Your task to perform on an android device: Open display settings Image 0: 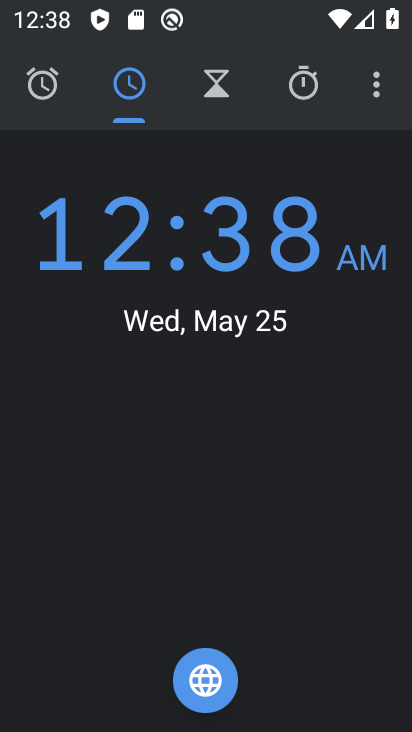
Step 0: press home button
Your task to perform on an android device: Open display settings Image 1: 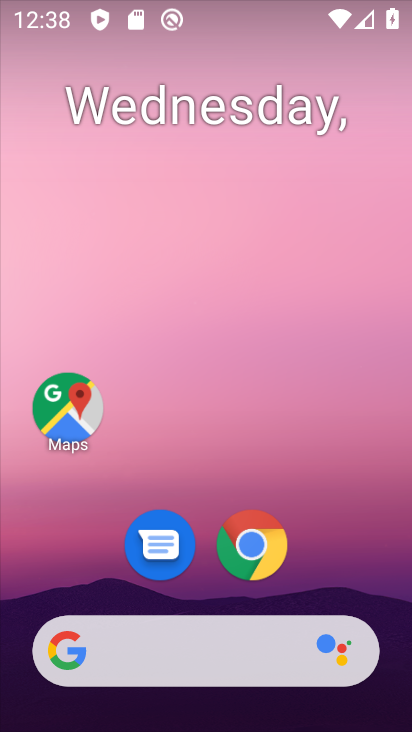
Step 1: drag from (250, 463) to (223, 144)
Your task to perform on an android device: Open display settings Image 2: 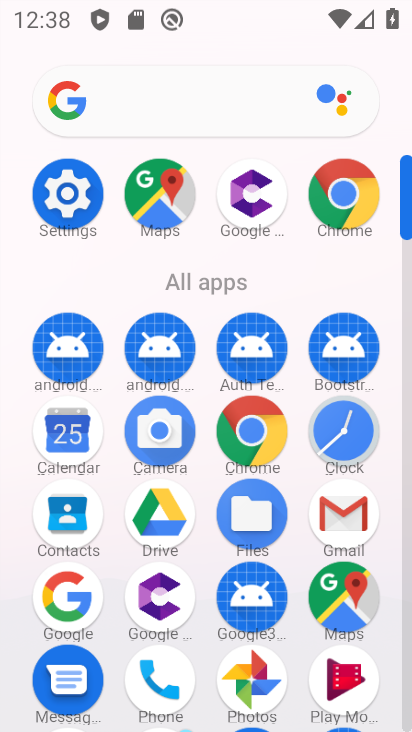
Step 2: click (77, 212)
Your task to perform on an android device: Open display settings Image 3: 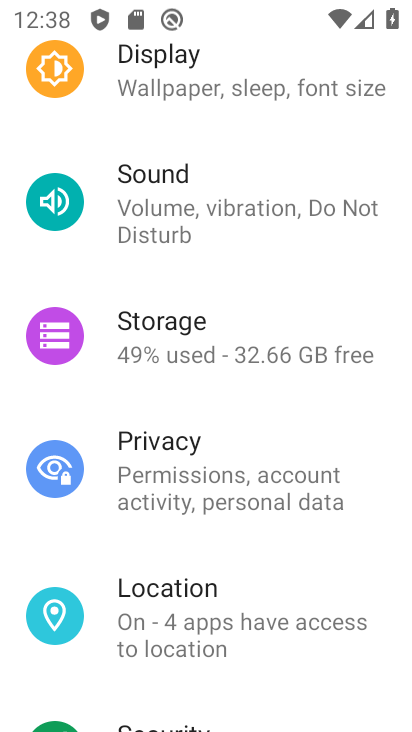
Step 3: click (187, 87)
Your task to perform on an android device: Open display settings Image 4: 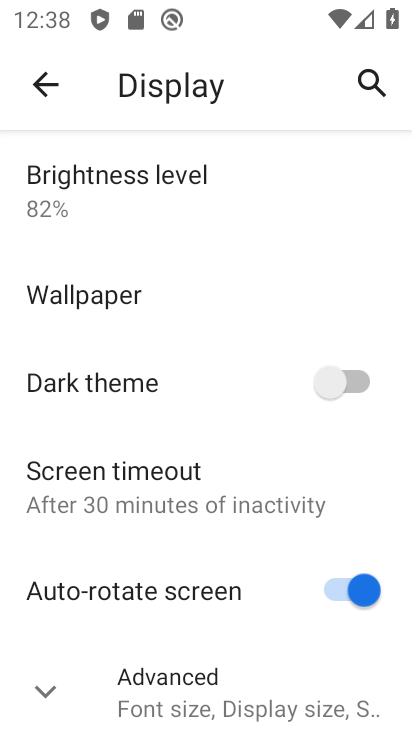
Step 4: task complete